Your task to perform on an android device: turn on notifications settings in the gmail app Image 0: 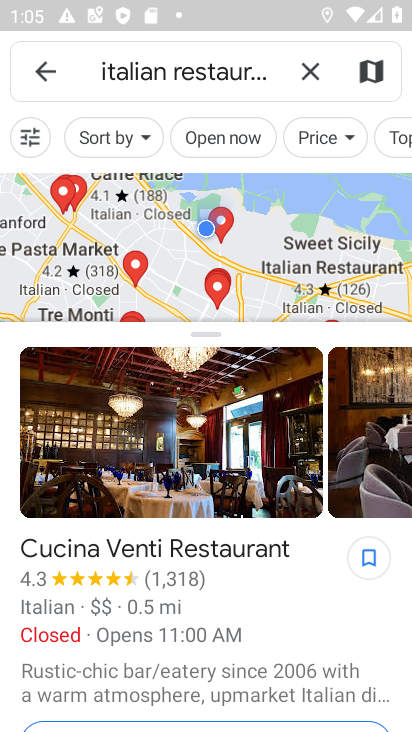
Step 0: press home button
Your task to perform on an android device: turn on notifications settings in the gmail app Image 1: 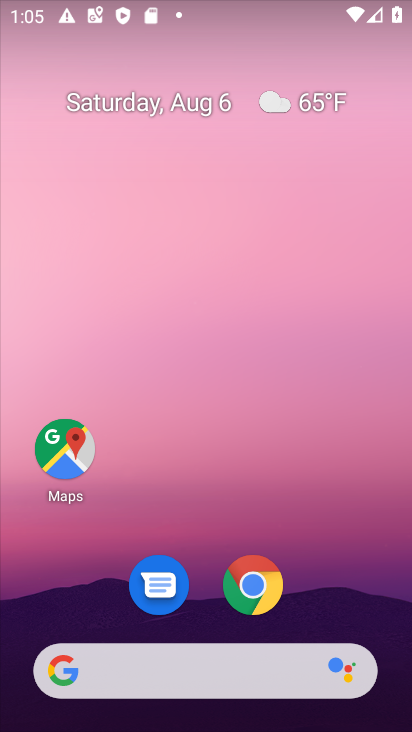
Step 1: drag from (318, 570) to (299, 15)
Your task to perform on an android device: turn on notifications settings in the gmail app Image 2: 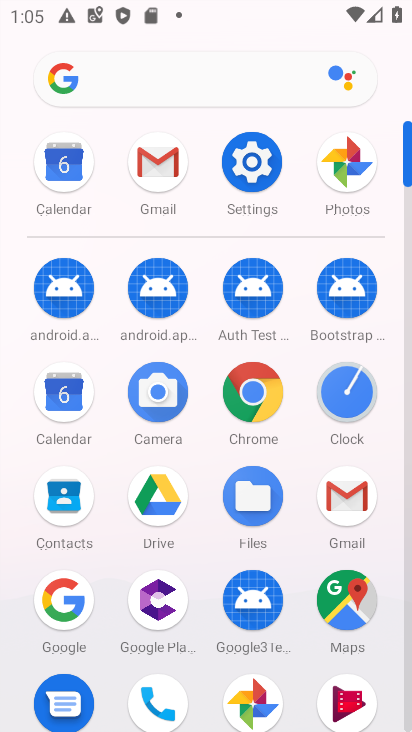
Step 2: click (347, 490)
Your task to perform on an android device: turn on notifications settings in the gmail app Image 3: 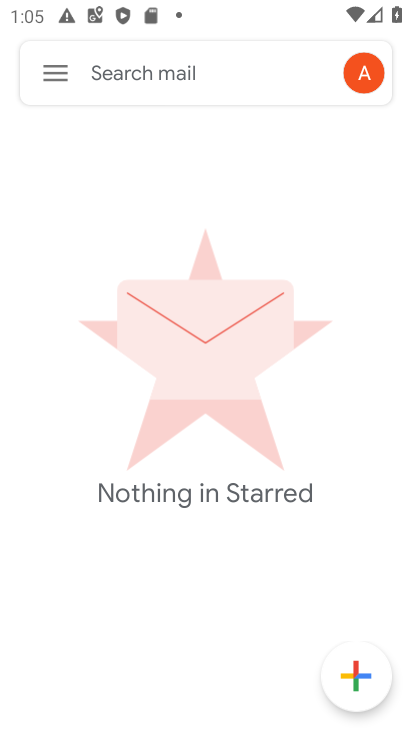
Step 3: click (55, 76)
Your task to perform on an android device: turn on notifications settings in the gmail app Image 4: 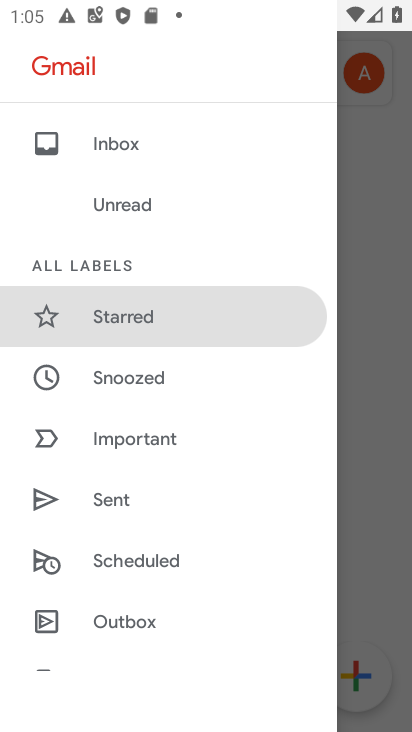
Step 4: drag from (155, 474) to (191, 17)
Your task to perform on an android device: turn on notifications settings in the gmail app Image 5: 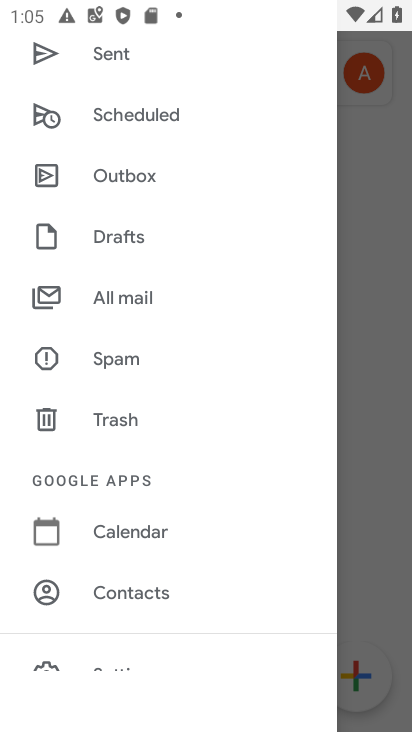
Step 5: drag from (151, 467) to (171, 132)
Your task to perform on an android device: turn on notifications settings in the gmail app Image 6: 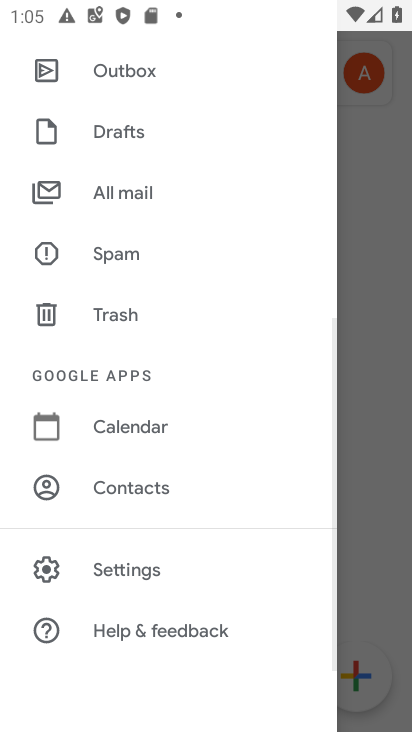
Step 6: click (127, 567)
Your task to perform on an android device: turn on notifications settings in the gmail app Image 7: 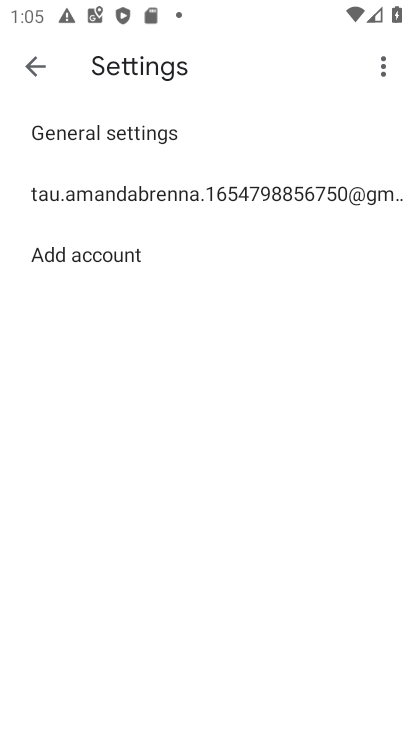
Step 7: click (253, 189)
Your task to perform on an android device: turn on notifications settings in the gmail app Image 8: 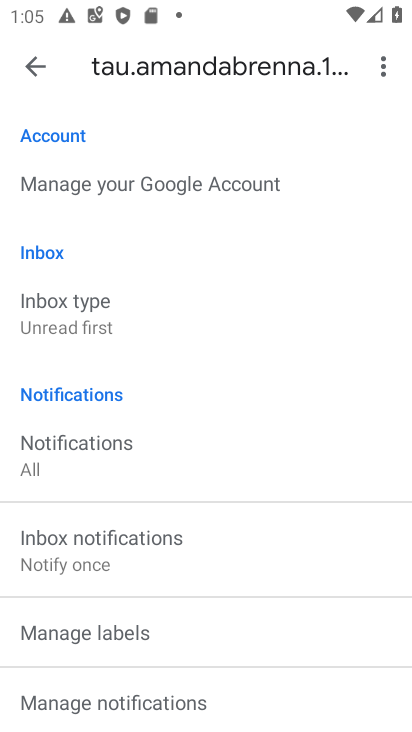
Step 8: drag from (270, 450) to (293, 120)
Your task to perform on an android device: turn on notifications settings in the gmail app Image 9: 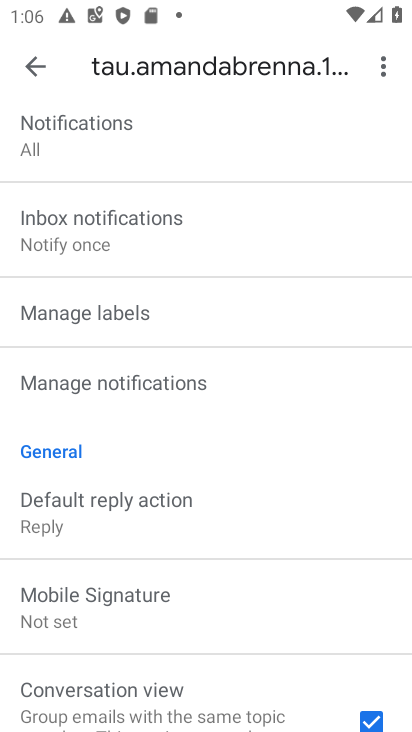
Step 9: click (234, 378)
Your task to perform on an android device: turn on notifications settings in the gmail app Image 10: 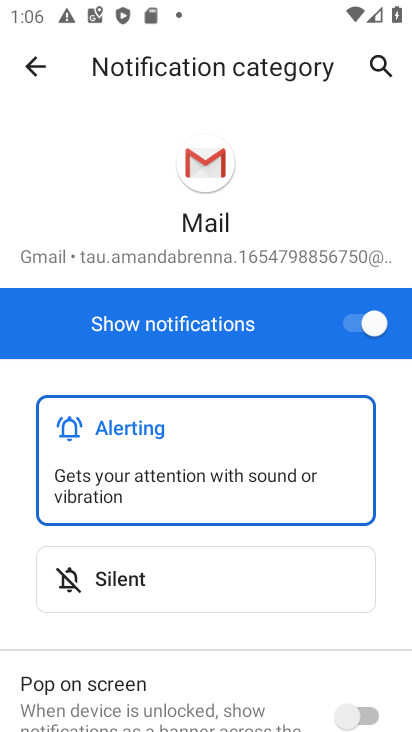
Step 10: task complete